Your task to perform on an android device: turn on location history Image 0: 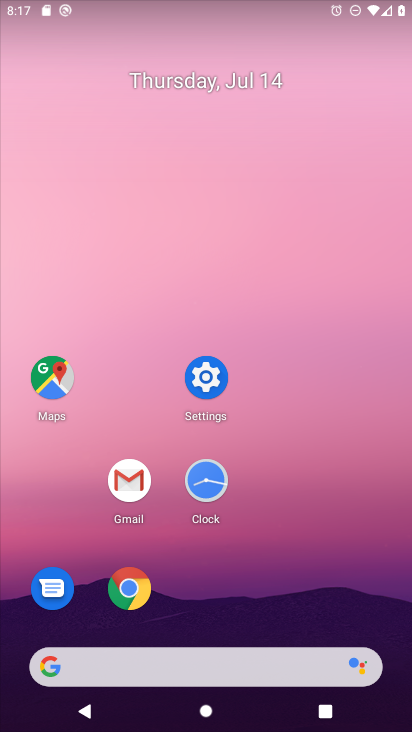
Step 0: click (212, 379)
Your task to perform on an android device: turn on location history Image 1: 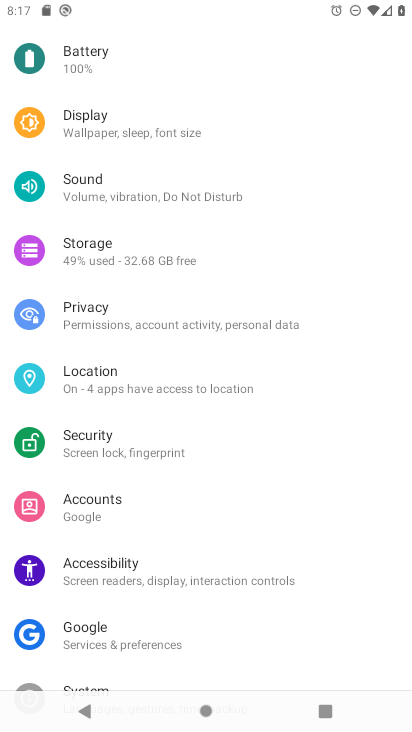
Step 1: click (91, 385)
Your task to perform on an android device: turn on location history Image 2: 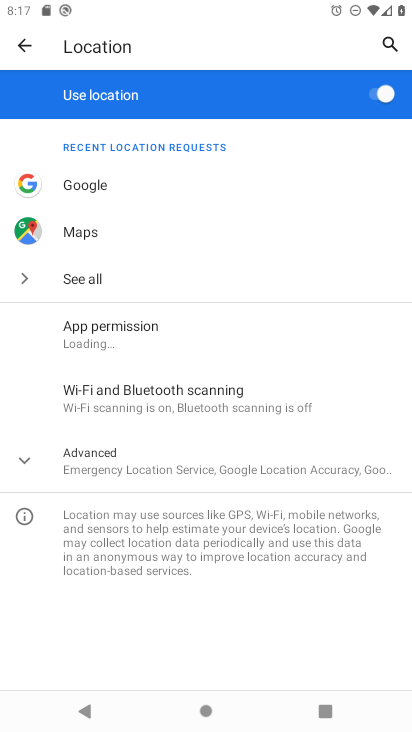
Step 2: click (19, 459)
Your task to perform on an android device: turn on location history Image 3: 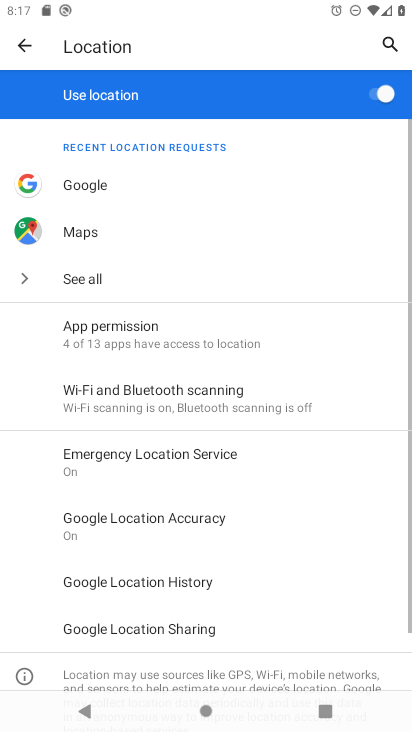
Step 3: click (105, 569)
Your task to perform on an android device: turn on location history Image 4: 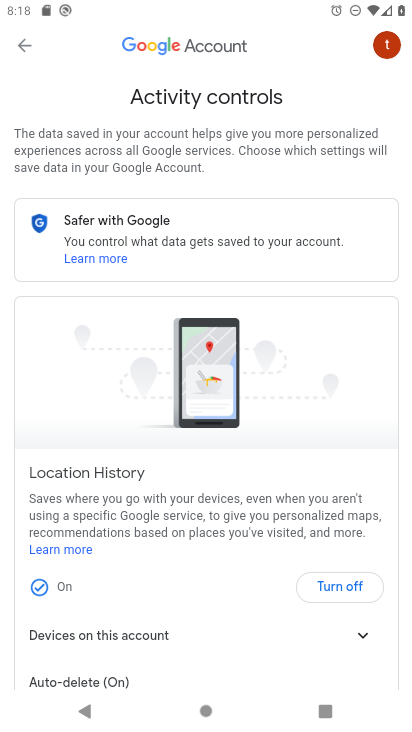
Step 4: click (59, 584)
Your task to perform on an android device: turn on location history Image 5: 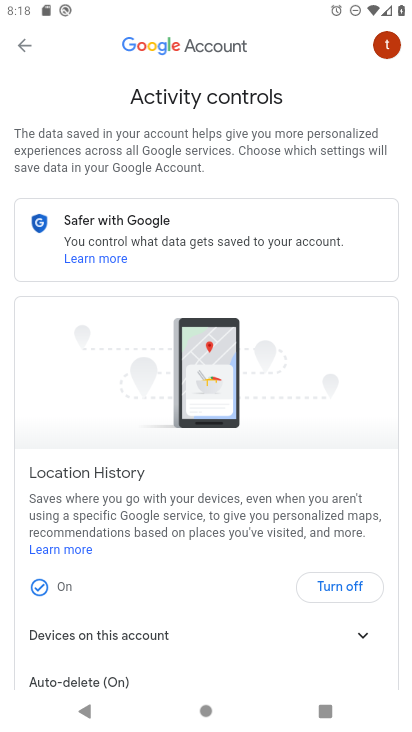
Step 5: task complete